Your task to perform on an android device: open the mobile data screen to see how much data has been used Image 0: 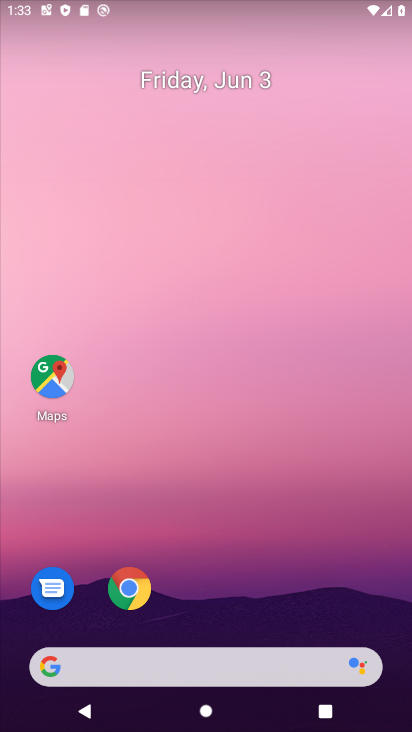
Step 0: press home button
Your task to perform on an android device: open the mobile data screen to see how much data has been used Image 1: 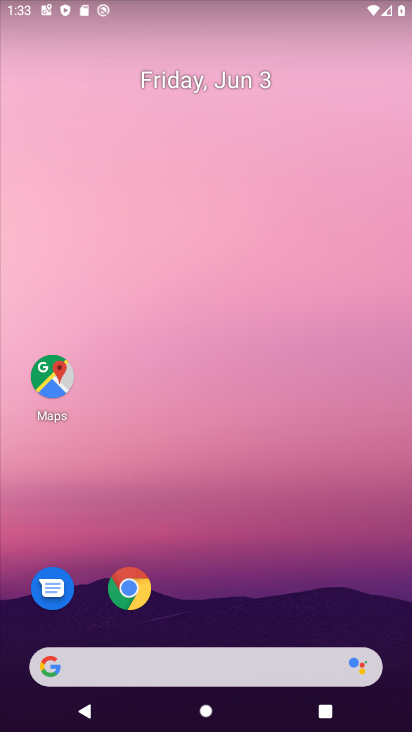
Step 1: drag from (28, 478) to (191, 146)
Your task to perform on an android device: open the mobile data screen to see how much data has been used Image 2: 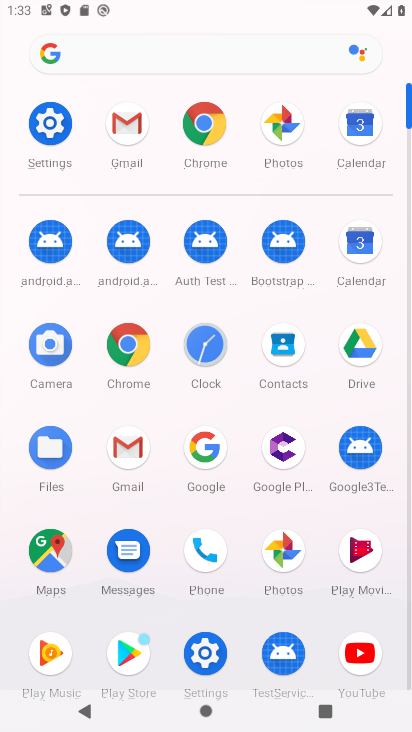
Step 2: click (47, 121)
Your task to perform on an android device: open the mobile data screen to see how much data has been used Image 3: 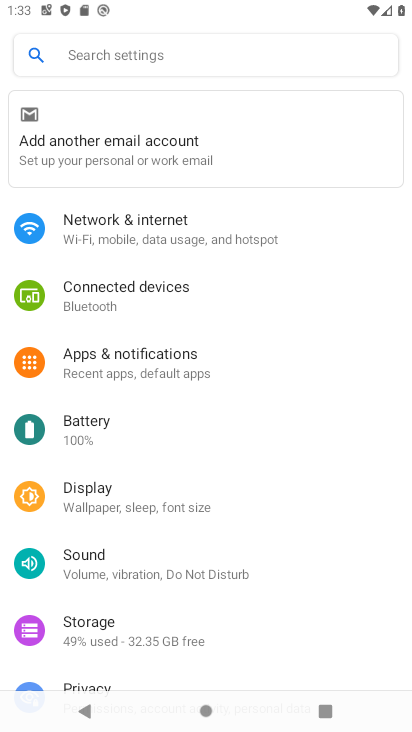
Step 3: click (55, 232)
Your task to perform on an android device: open the mobile data screen to see how much data has been used Image 4: 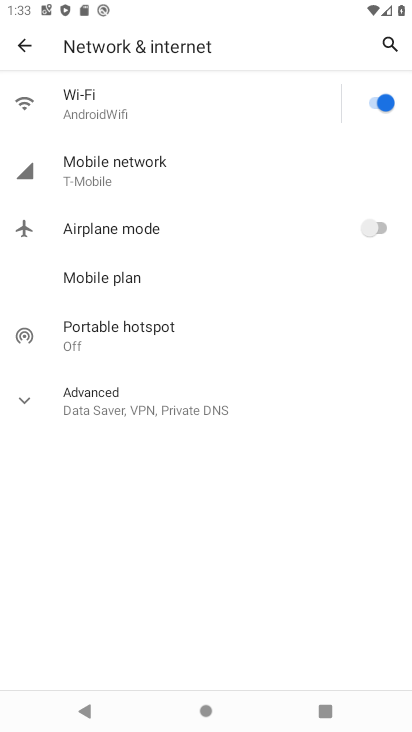
Step 4: click (141, 161)
Your task to perform on an android device: open the mobile data screen to see how much data has been used Image 5: 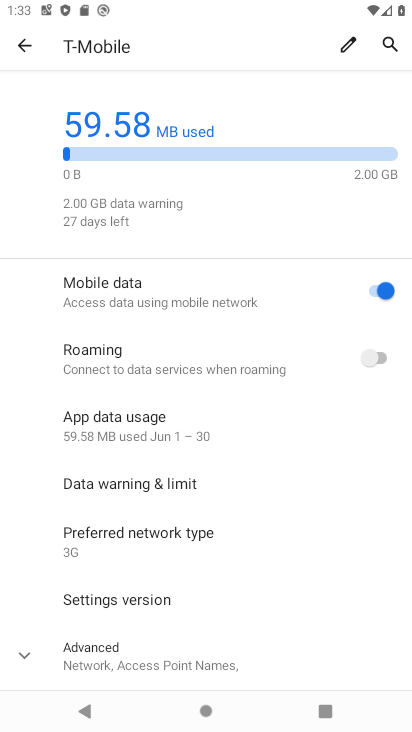
Step 5: task complete